Your task to perform on an android device: change the clock display to digital Image 0: 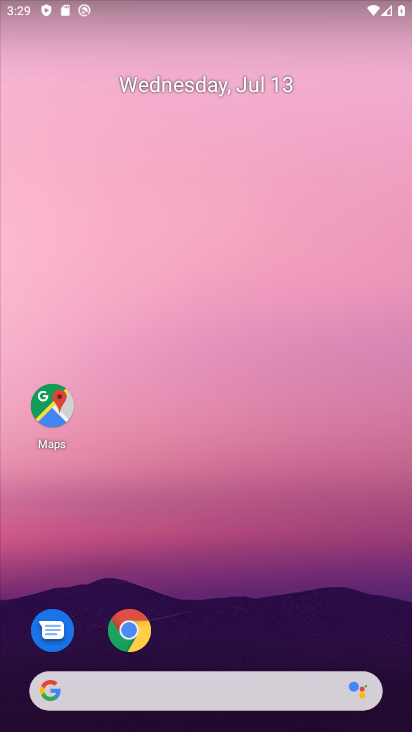
Step 0: drag from (234, 568) to (211, 264)
Your task to perform on an android device: change the clock display to digital Image 1: 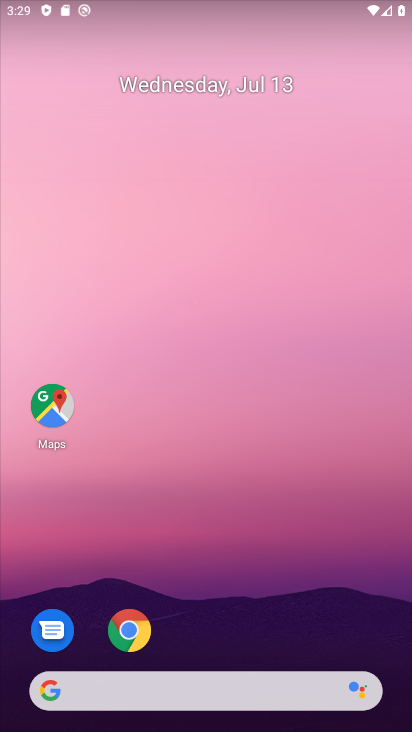
Step 1: drag from (240, 551) to (221, 242)
Your task to perform on an android device: change the clock display to digital Image 2: 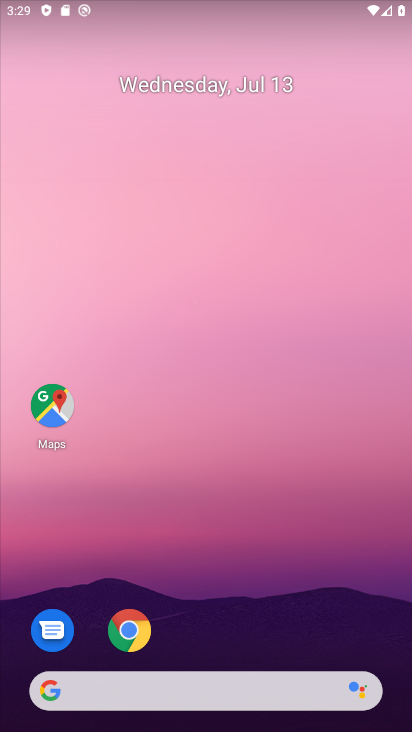
Step 2: drag from (230, 587) to (220, 147)
Your task to perform on an android device: change the clock display to digital Image 3: 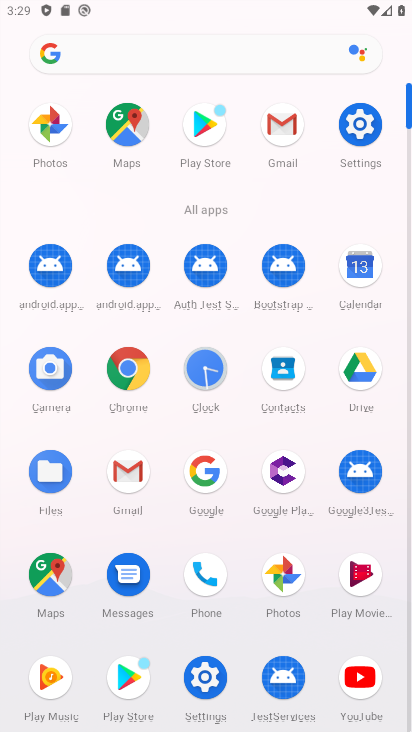
Step 3: click (203, 361)
Your task to perform on an android device: change the clock display to digital Image 4: 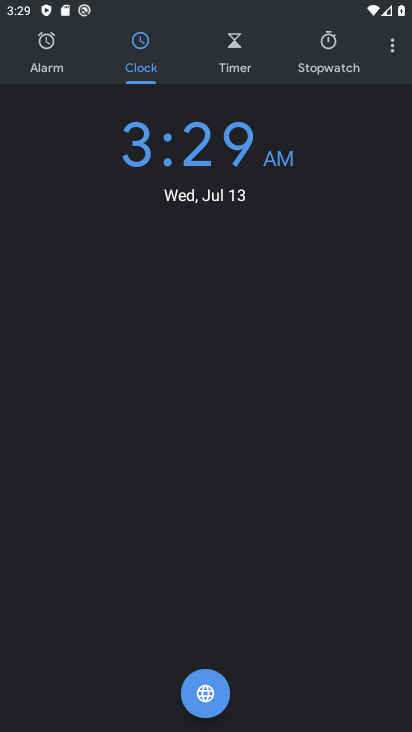
Step 4: click (394, 39)
Your task to perform on an android device: change the clock display to digital Image 5: 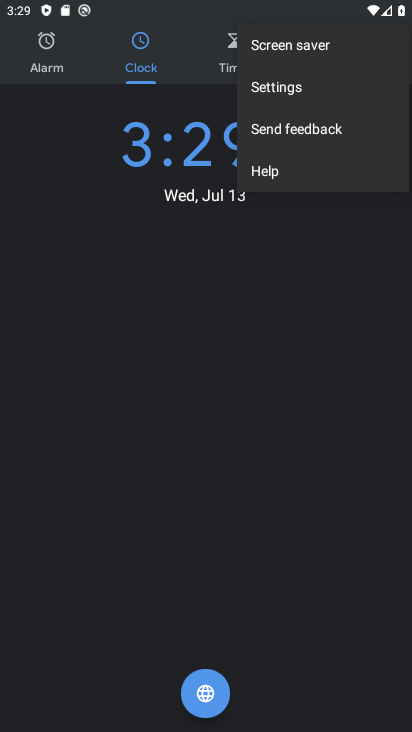
Step 5: click (278, 80)
Your task to perform on an android device: change the clock display to digital Image 6: 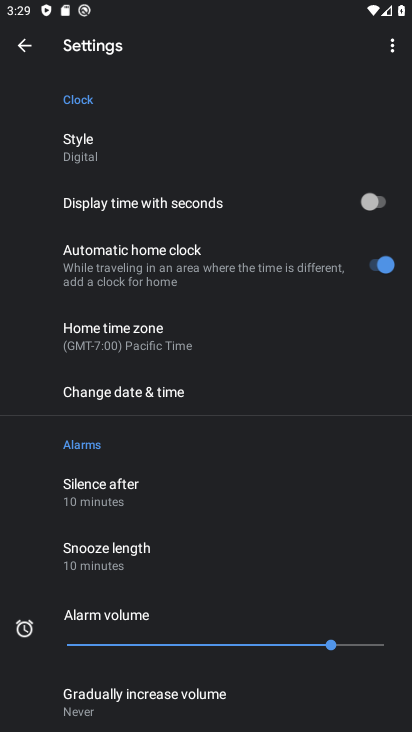
Step 6: task complete